Your task to perform on an android device: set default search engine in the chrome app Image 0: 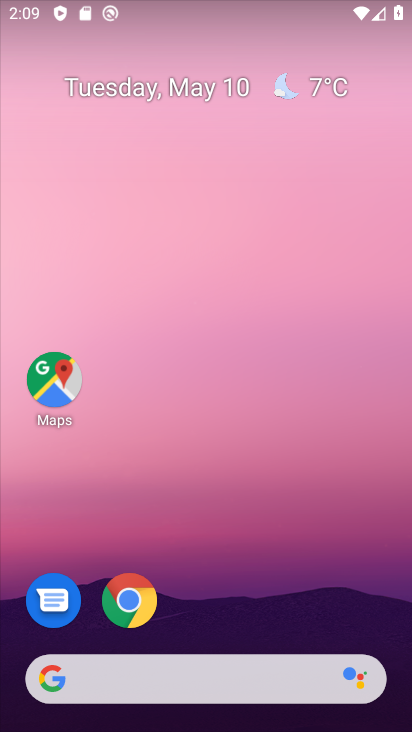
Step 0: click (141, 603)
Your task to perform on an android device: set default search engine in the chrome app Image 1: 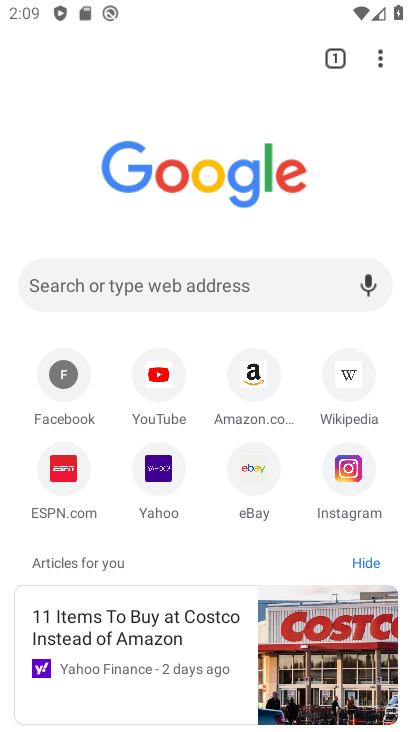
Step 1: click (381, 53)
Your task to perform on an android device: set default search engine in the chrome app Image 2: 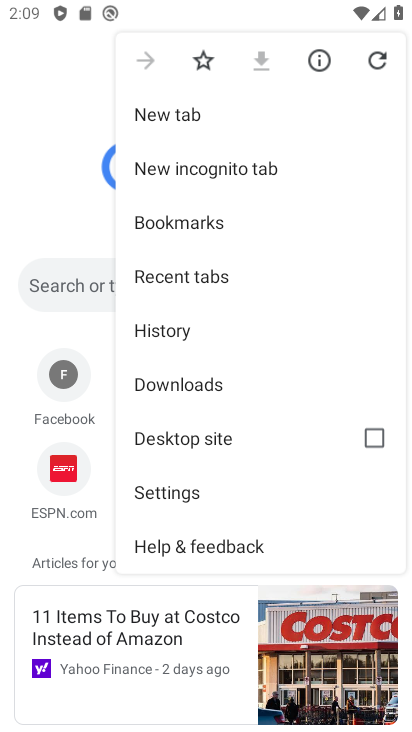
Step 2: click (204, 497)
Your task to perform on an android device: set default search engine in the chrome app Image 3: 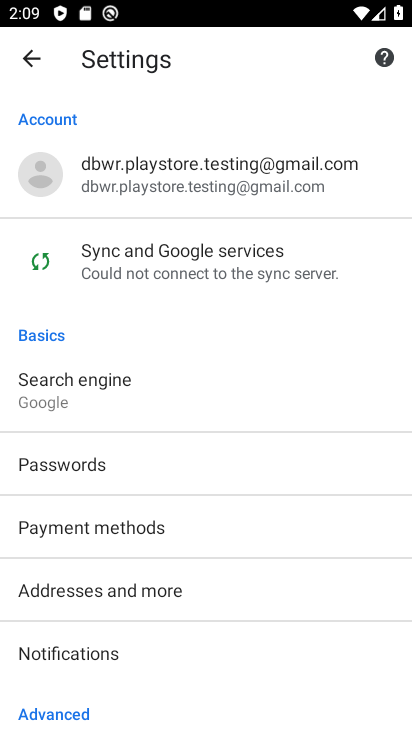
Step 3: click (101, 366)
Your task to perform on an android device: set default search engine in the chrome app Image 4: 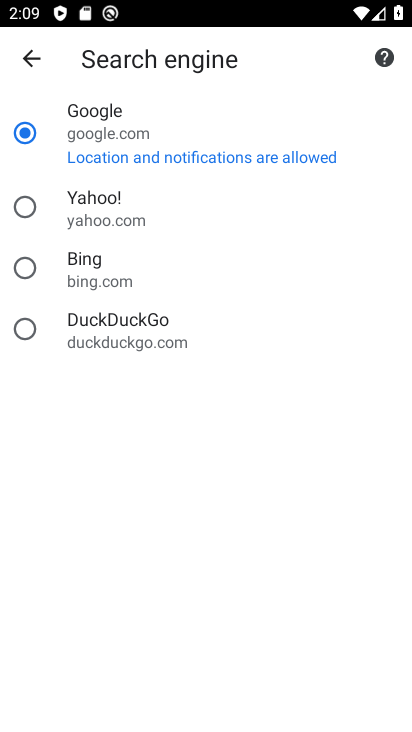
Step 4: click (102, 205)
Your task to perform on an android device: set default search engine in the chrome app Image 5: 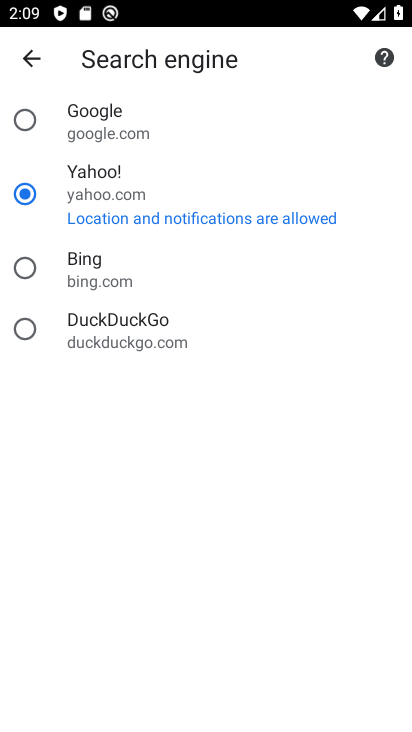
Step 5: task complete